Your task to perform on an android device: turn off location Image 0: 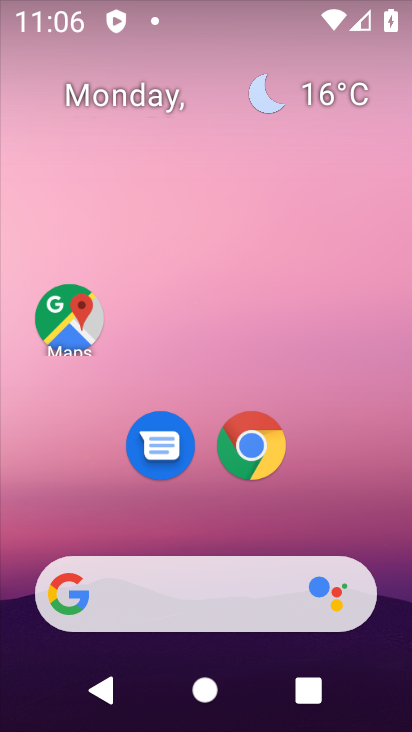
Step 0: drag from (184, 518) to (205, 3)
Your task to perform on an android device: turn off location Image 1: 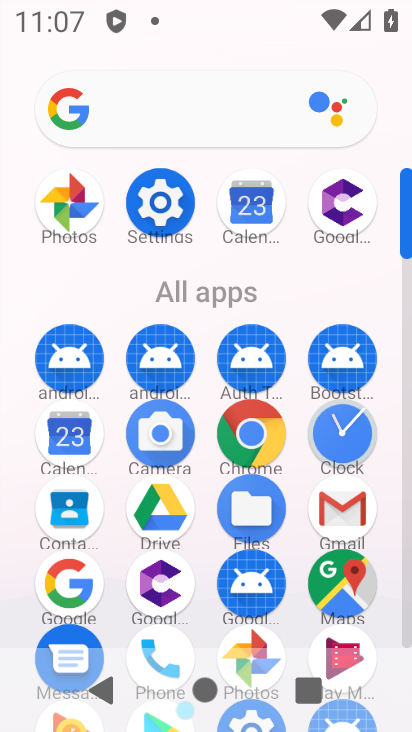
Step 1: click (168, 211)
Your task to perform on an android device: turn off location Image 2: 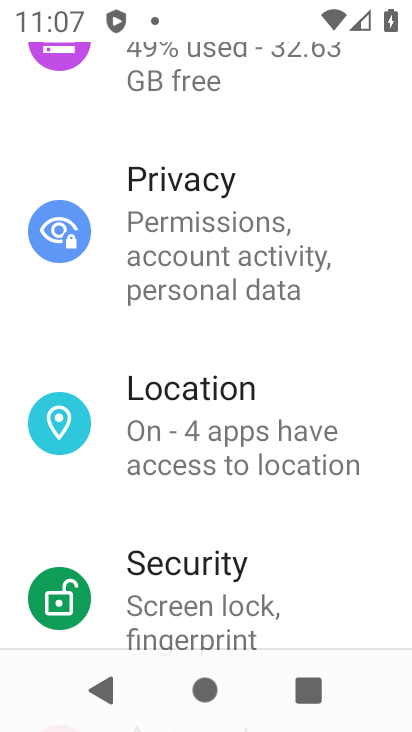
Step 2: click (232, 447)
Your task to perform on an android device: turn off location Image 3: 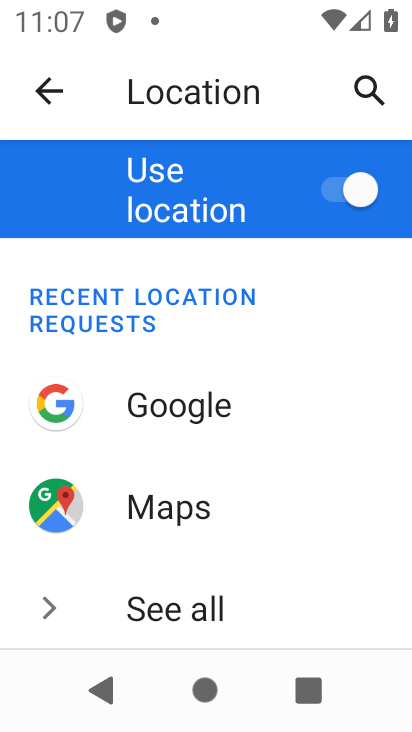
Step 3: click (297, 186)
Your task to perform on an android device: turn off location Image 4: 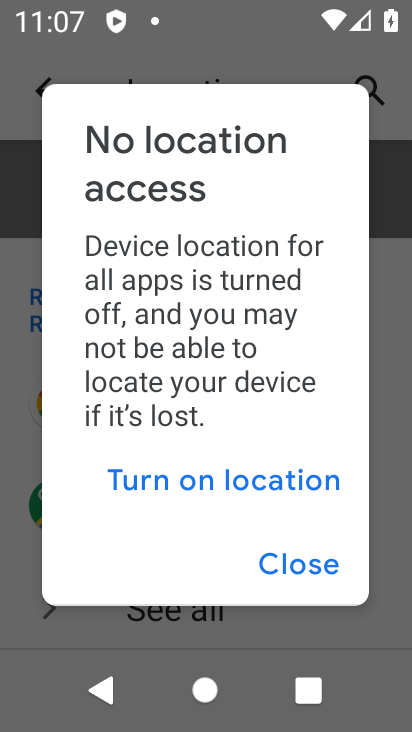
Step 4: click (313, 570)
Your task to perform on an android device: turn off location Image 5: 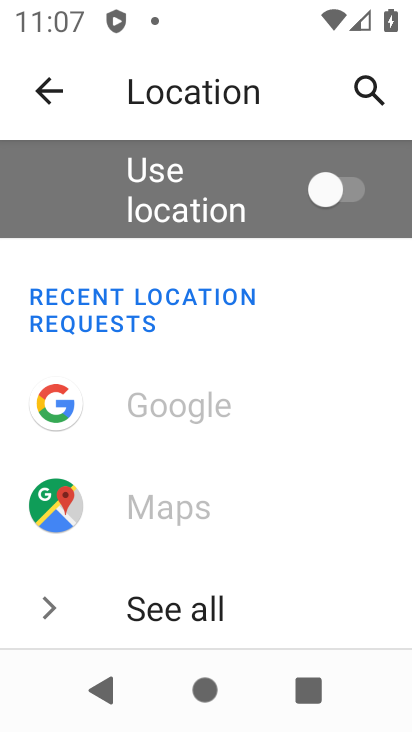
Step 5: task complete